Your task to perform on an android device: choose inbox layout in the gmail app Image 0: 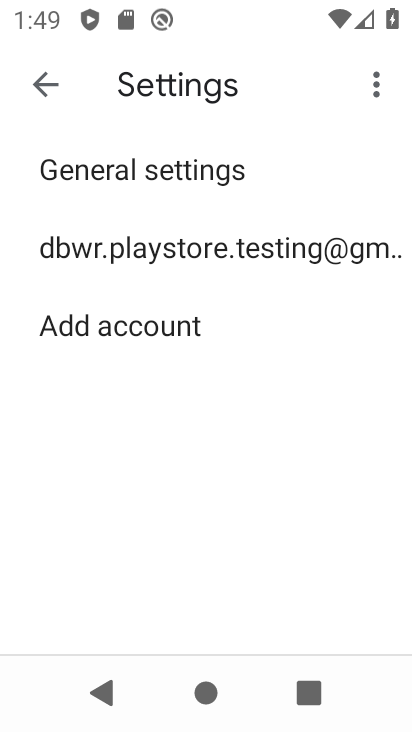
Step 0: press home button
Your task to perform on an android device: choose inbox layout in the gmail app Image 1: 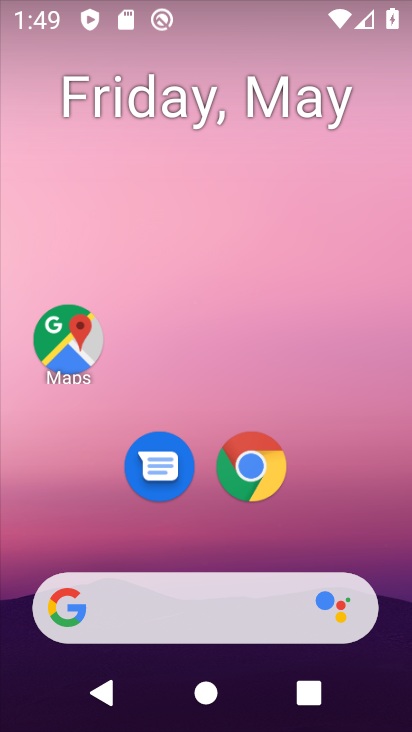
Step 1: drag from (341, 494) to (279, 149)
Your task to perform on an android device: choose inbox layout in the gmail app Image 2: 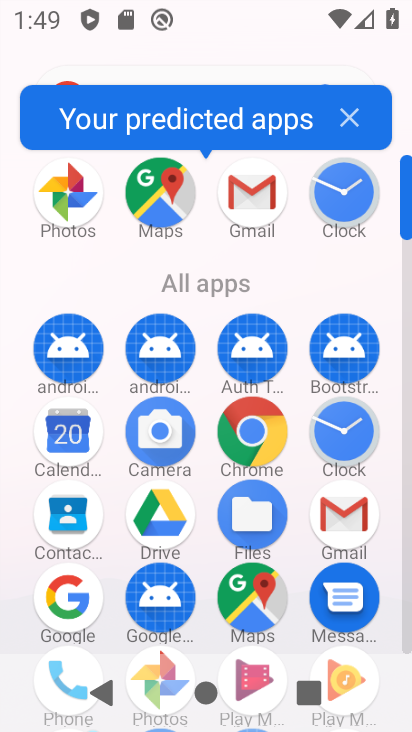
Step 2: click (223, 214)
Your task to perform on an android device: choose inbox layout in the gmail app Image 3: 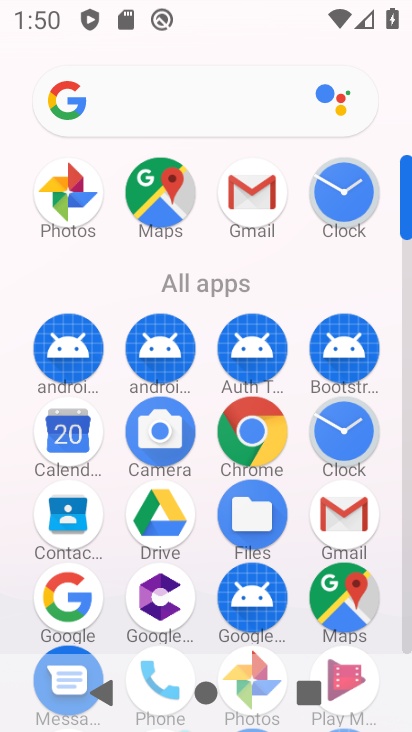
Step 3: click (255, 210)
Your task to perform on an android device: choose inbox layout in the gmail app Image 4: 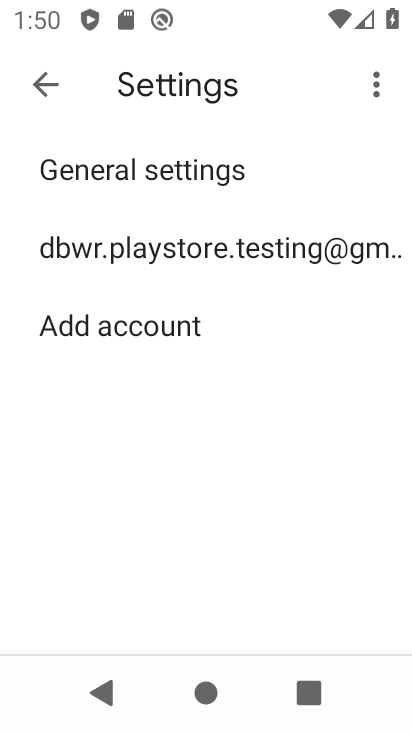
Step 4: click (58, 85)
Your task to perform on an android device: choose inbox layout in the gmail app Image 5: 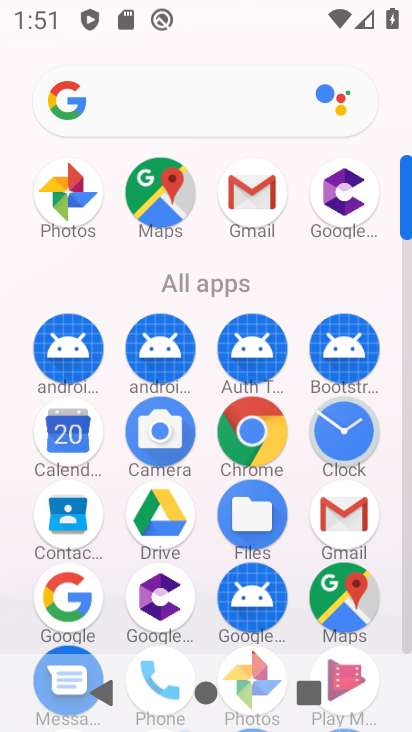
Step 5: click (224, 194)
Your task to perform on an android device: choose inbox layout in the gmail app Image 6: 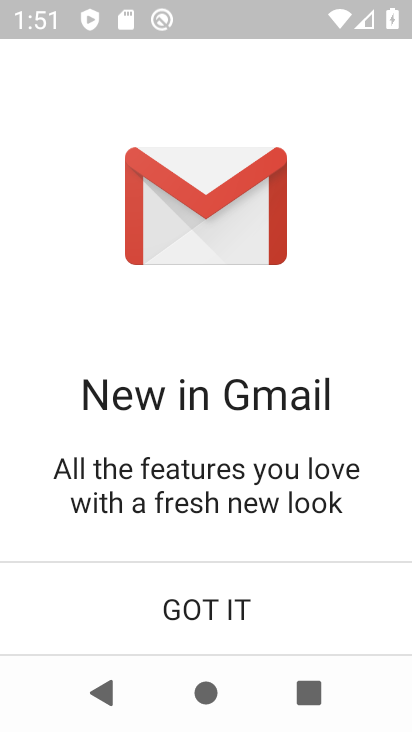
Step 6: click (290, 580)
Your task to perform on an android device: choose inbox layout in the gmail app Image 7: 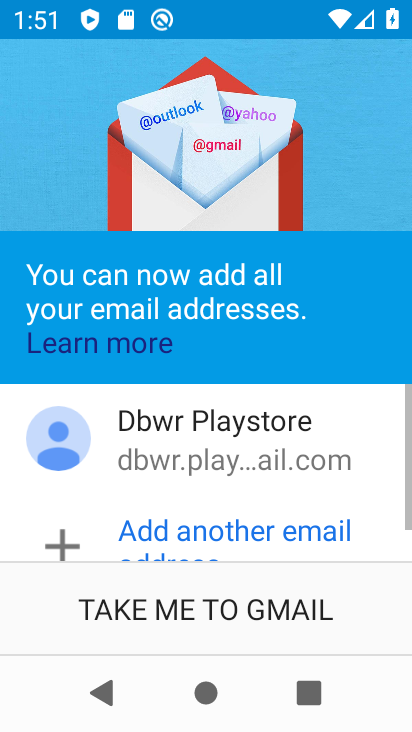
Step 7: click (293, 604)
Your task to perform on an android device: choose inbox layout in the gmail app Image 8: 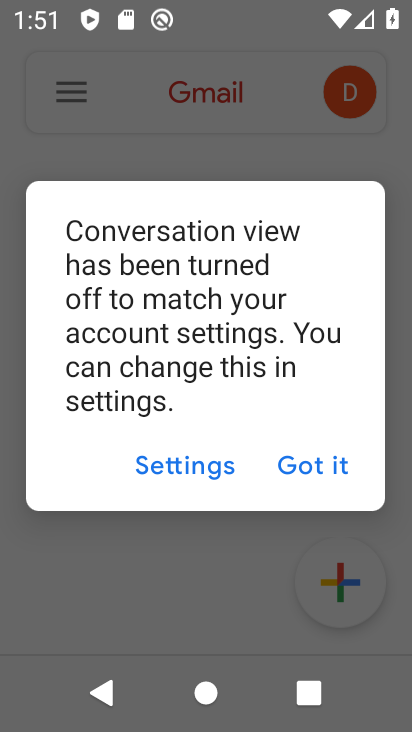
Step 8: click (311, 479)
Your task to perform on an android device: choose inbox layout in the gmail app Image 9: 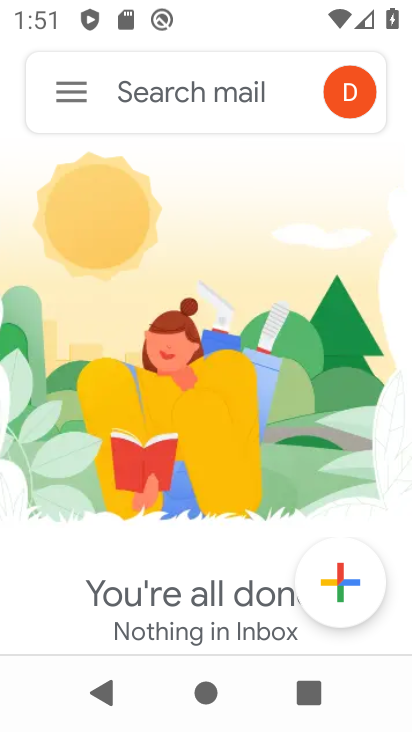
Step 9: task complete